Your task to perform on an android device: Search for sushi restaurants on Maps Image 0: 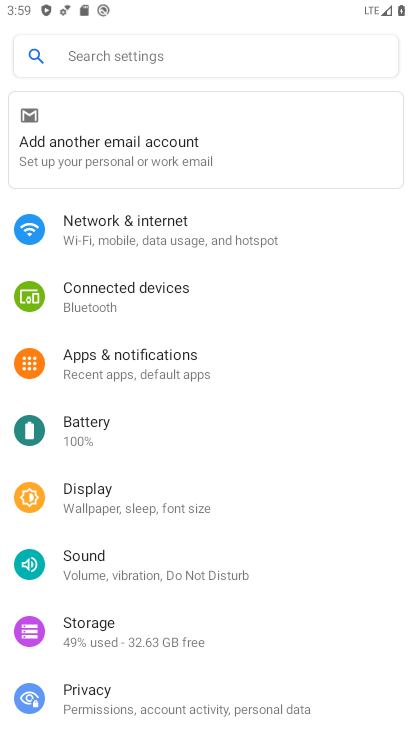
Step 0: press home button
Your task to perform on an android device: Search for sushi restaurants on Maps Image 1: 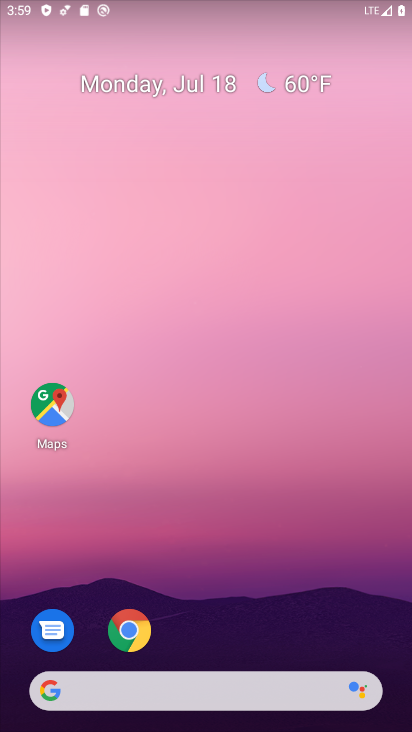
Step 1: click (49, 424)
Your task to perform on an android device: Search for sushi restaurants on Maps Image 2: 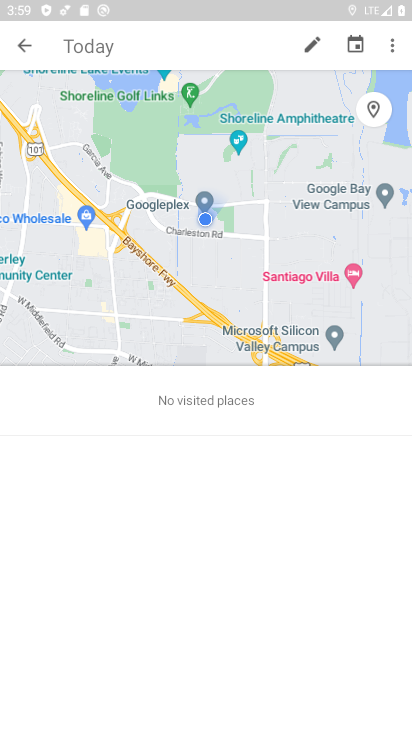
Step 2: click (22, 38)
Your task to perform on an android device: Search for sushi restaurants on Maps Image 3: 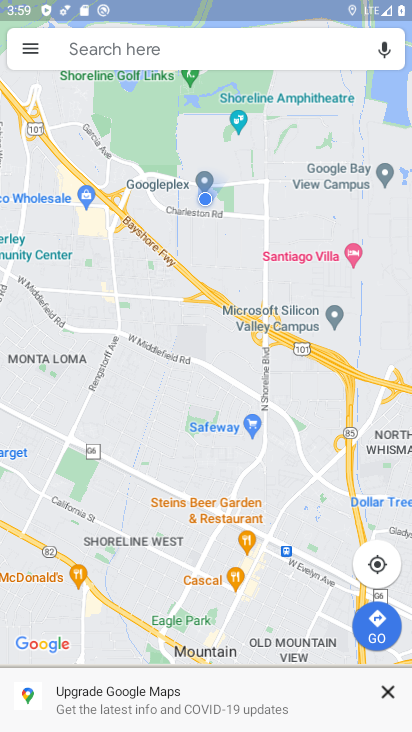
Step 3: click (115, 51)
Your task to perform on an android device: Search for sushi restaurants on Maps Image 4: 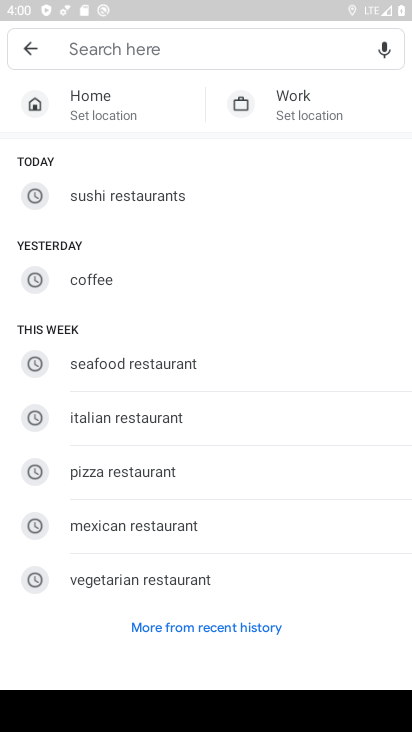
Step 4: click (236, 191)
Your task to perform on an android device: Search for sushi restaurants on Maps Image 5: 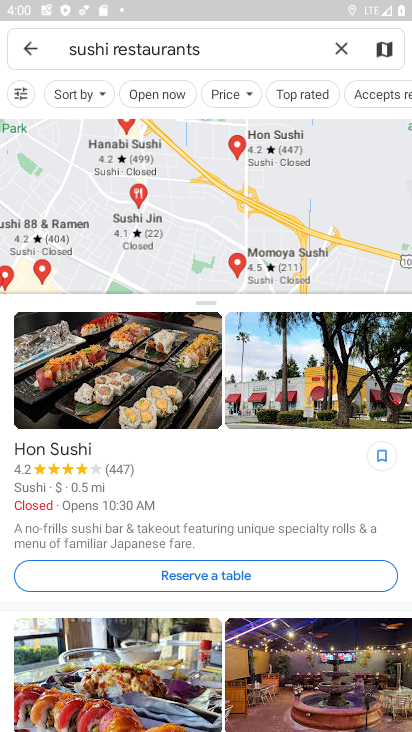
Step 5: task complete